Your task to perform on an android device: Go to settings Image 0: 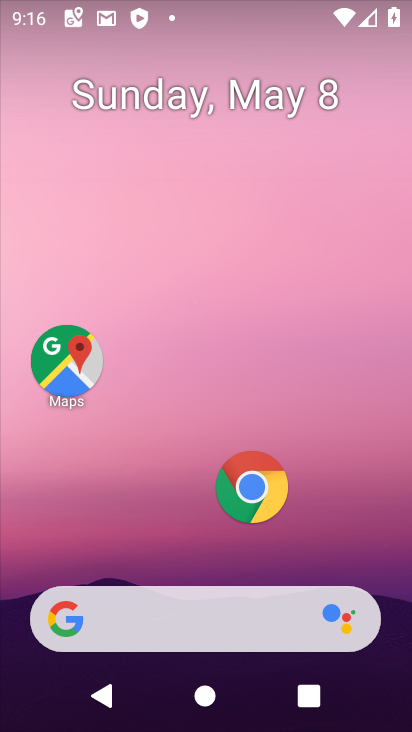
Step 0: drag from (166, 553) to (187, 33)
Your task to perform on an android device: Go to settings Image 1: 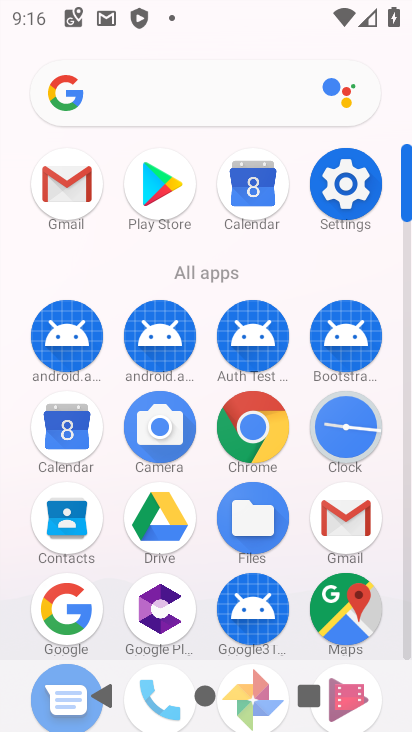
Step 1: click (338, 164)
Your task to perform on an android device: Go to settings Image 2: 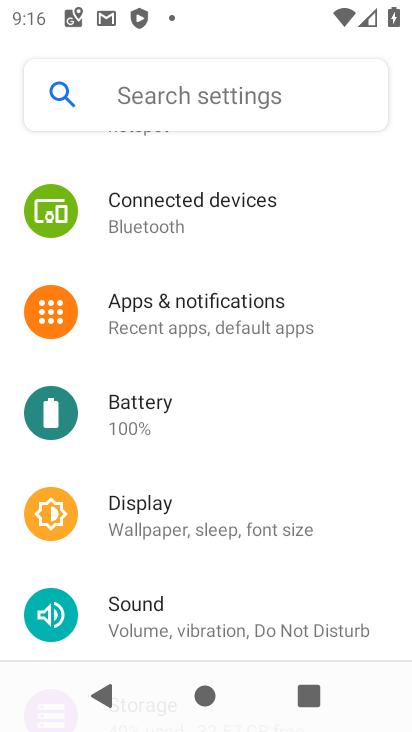
Step 2: task complete